Your task to perform on an android device: change notification settings in the gmail app Image 0: 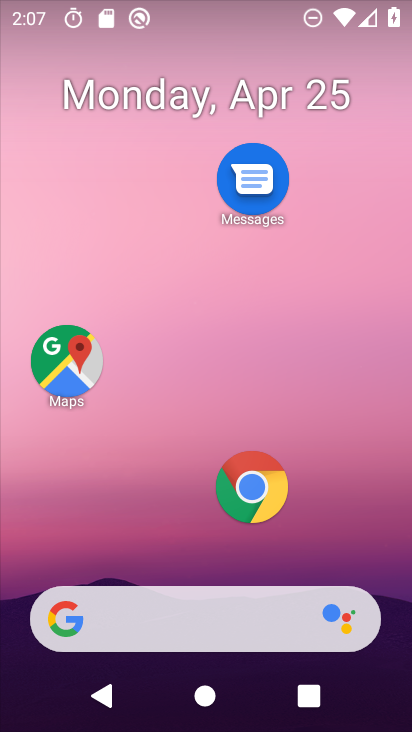
Step 0: drag from (295, 637) to (324, 29)
Your task to perform on an android device: change notification settings in the gmail app Image 1: 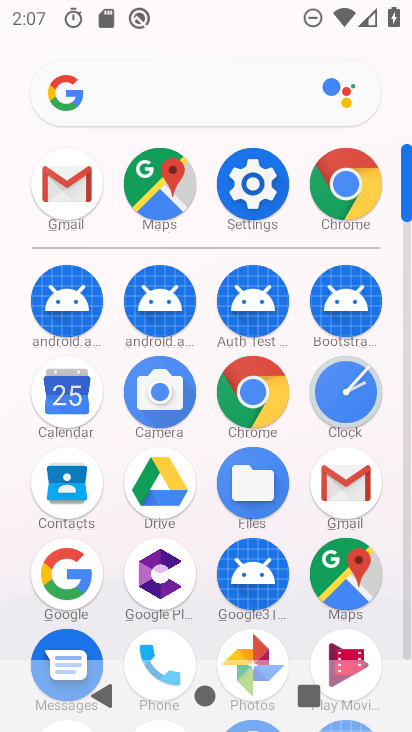
Step 1: click (342, 472)
Your task to perform on an android device: change notification settings in the gmail app Image 2: 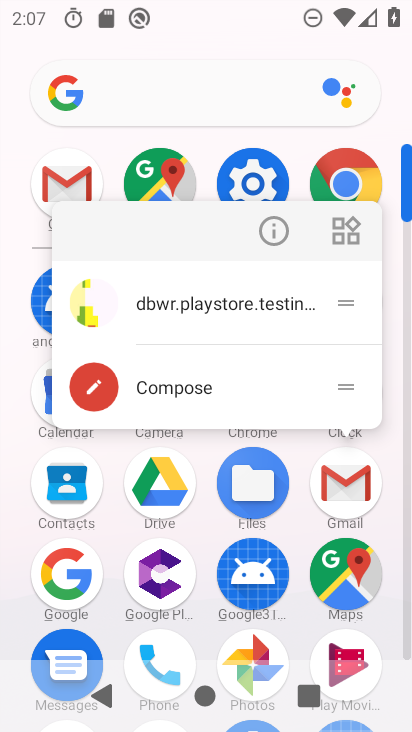
Step 2: click (342, 472)
Your task to perform on an android device: change notification settings in the gmail app Image 3: 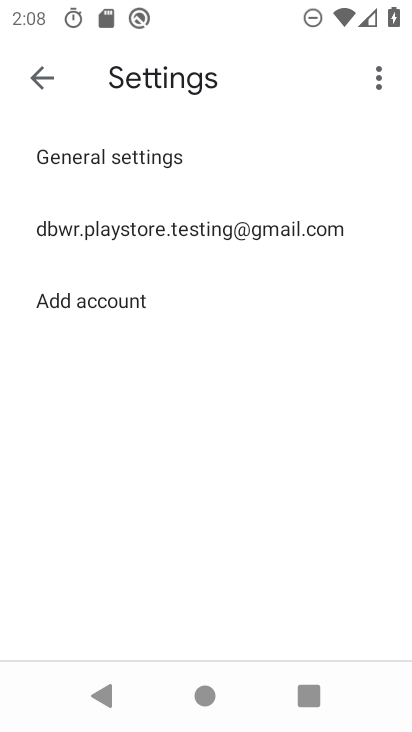
Step 3: click (120, 234)
Your task to perform on an android device: change notification settings in the gmail app Image 4: 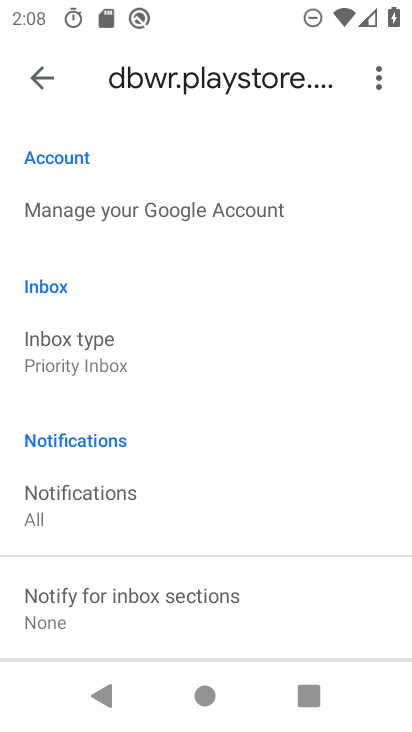
Step 4: drag from (125, 637) to (162, 335)
Your task to perform on an android device: change notification settings in the gmail app Image 5: 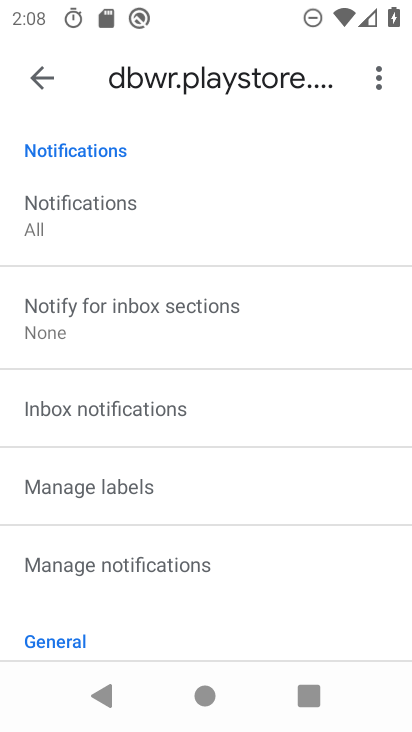
Step 5: click (186, 556)
Your task to perform on an android device: change notification settings in the gmail app Image 6: 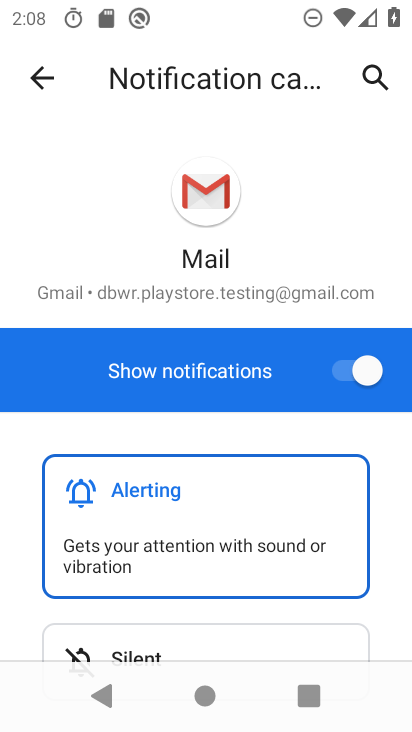
Step 6: click (344, 365)
Your task to perform on an android device: change notification settings in the gmail app Image 7: 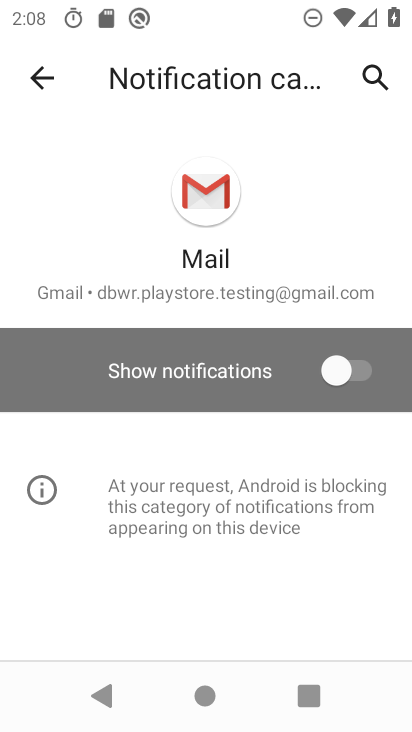
Step 7: task complete